Your task to perform on an android device: Open Chrome and go to settings Image 0: 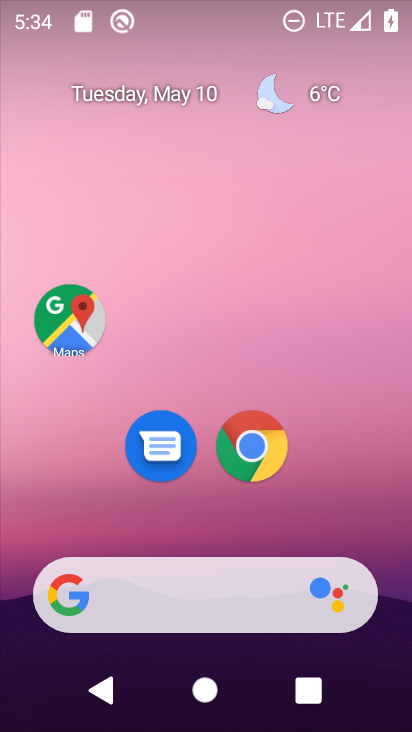
Step 0: click (262, 459)
Your task to perform on an android device: Open Chrome and go to settings Image 1: 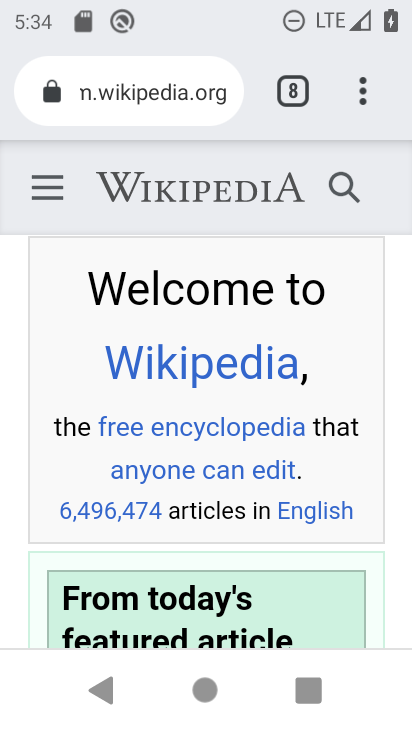
Step 1: click (357, 98)
Your task to perform on an android device: Open Chrome and go to settings Image 2: 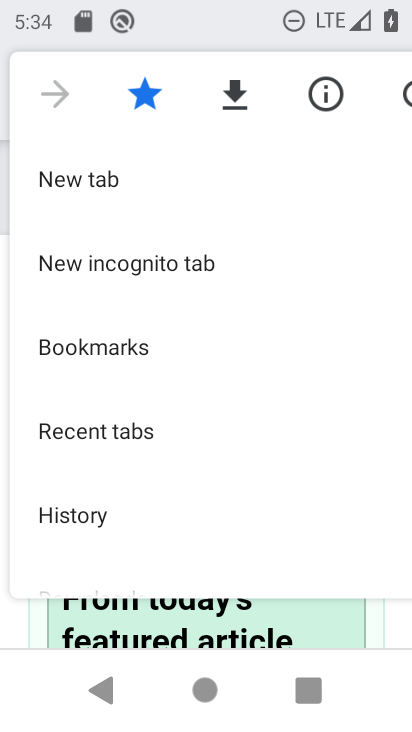
Step 2: drag from (205, 479) to (194, 132)
Your task to perform on an android device: Open Chrome and go to settings Image 3: 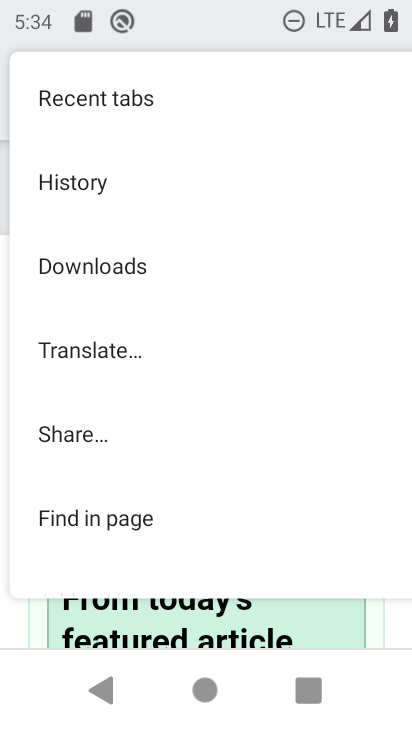
Step 3: drag from (167, 479) to (174, 123)
Your task to perform on an android device: Open Chrome and go to settings Image 4: 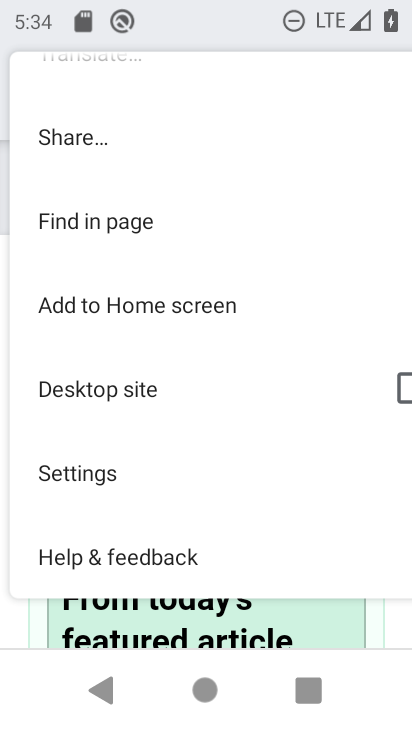
Step 4: click (136, 475)
Your task to perform on an android device: Open Chrome and go to settings Image 5: 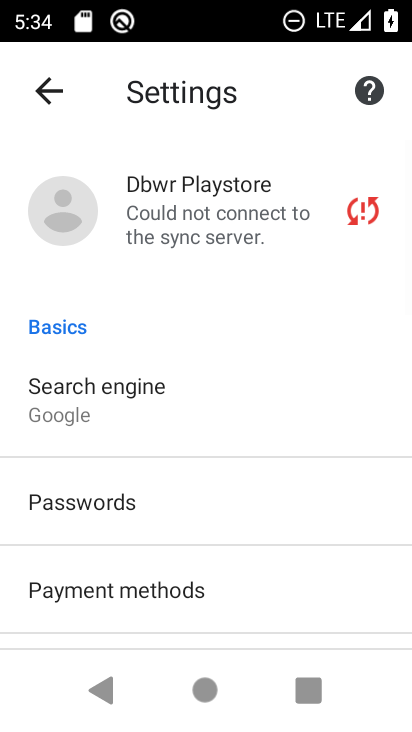
Step 5: task complete